Your task to perform on an android device: all mails in gmail Image 0: 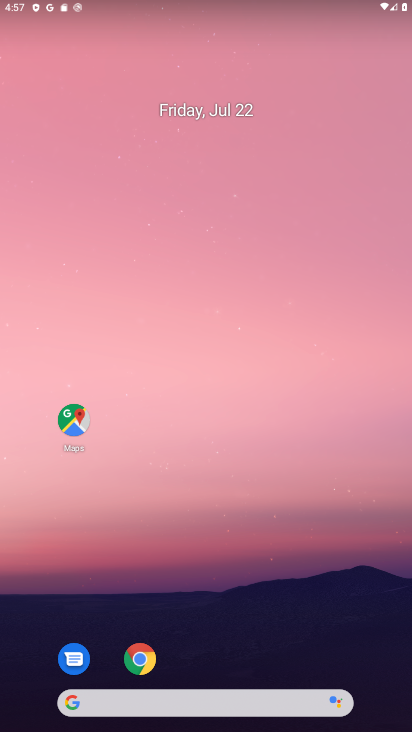
Step 0: press home button
Your task to perform on an android device: all mails in gmail Image 1: 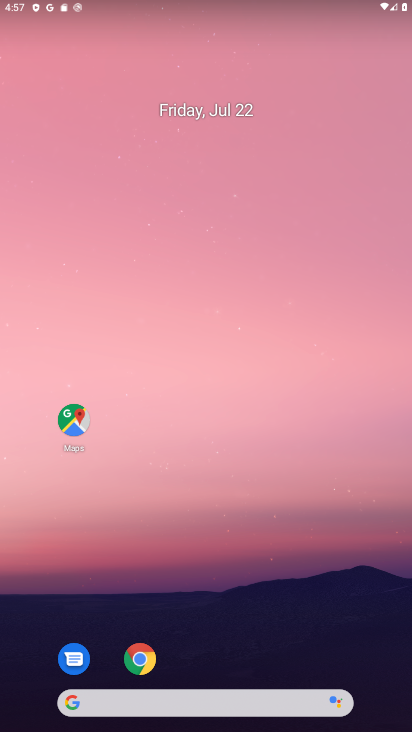
Step 1: drag from (231, 670) to (250, 9)
Your task to perform on an android device: all mails in gmail Image 2: 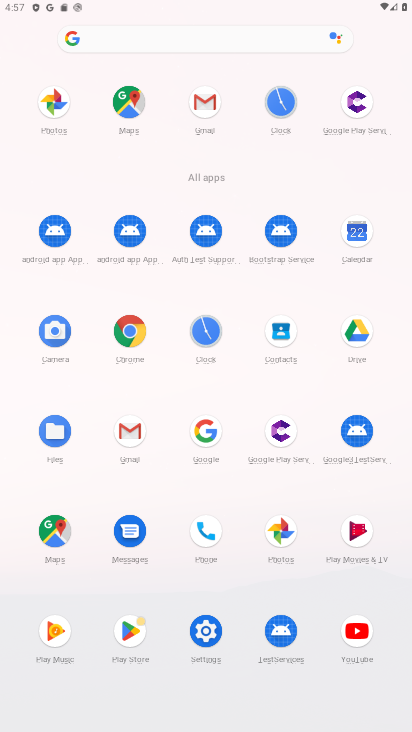
Step 2: click (204, 95)
Your task to perform on an android device: all mails in gmail Image 3: 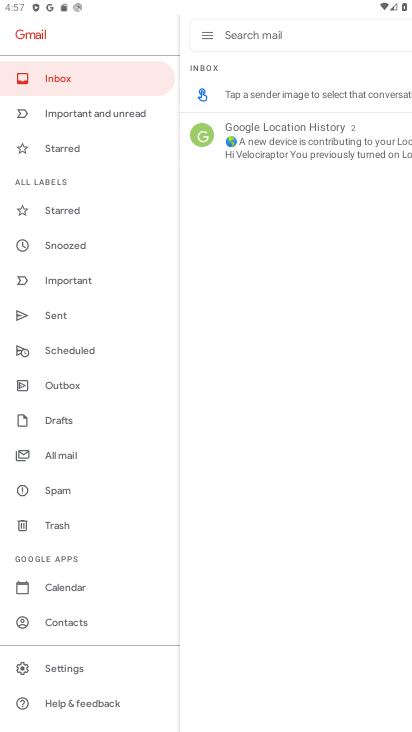
Step 3: click (76, 454)
Your task to perform on an android device: all mails in gmail Image 4: 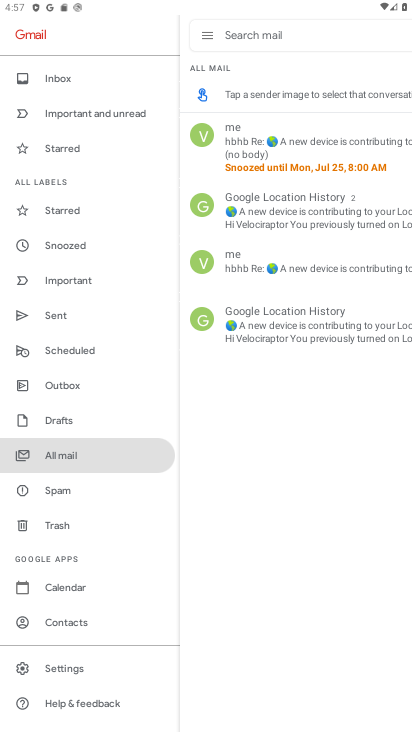
Step 4: task complete